Your task to perform on an android device: turn off location Image 0: 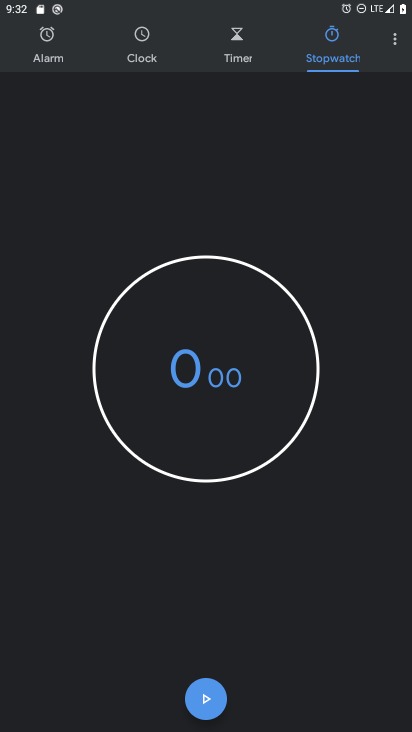
Step 0: press home button
Your task to perform on an android device: turn off location Image 1: 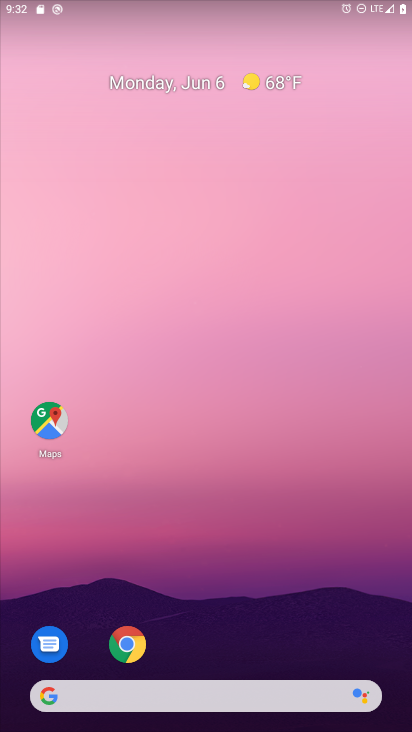
Step 1: drag from (252, 708) to (157, 95)
Your task to perform on an android device: turn off location Image 2: 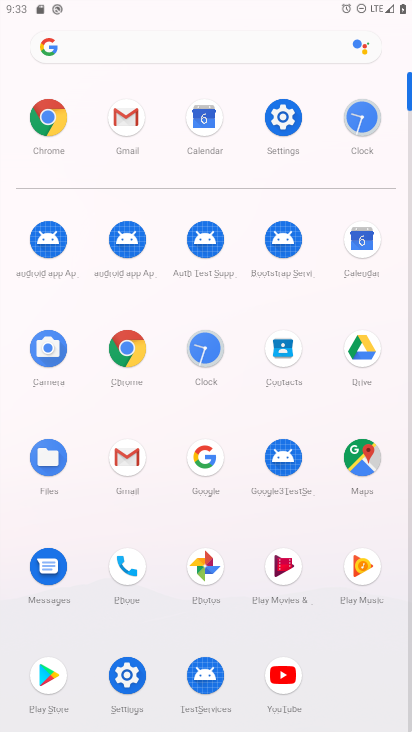
Step 2: click (288, 137)
Your task to perform on an android device: turn off location Image 3: 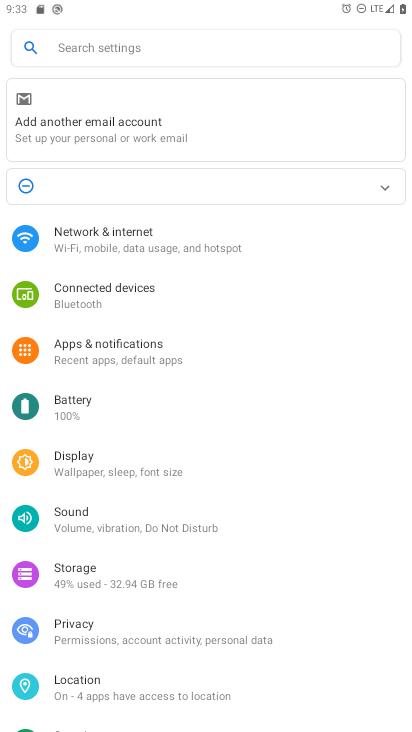
Step 3: click (148, 51)
Your task to perform on an android device: turn off location Image 4: 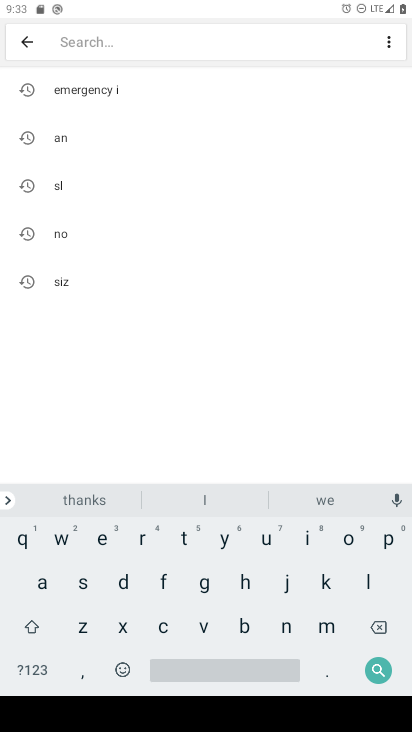
Step 4: click (374, 580)
Your task to perform on an android device: turn off location Image 5: 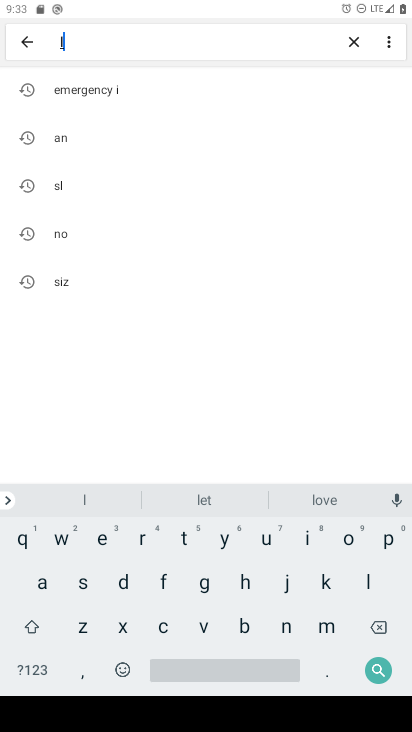
Step 5: click (349, 537)
Your task to perform on an android device: turn off location Image 6: 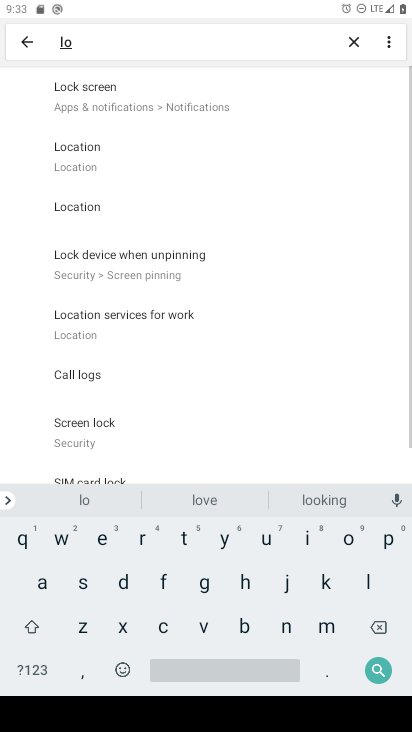
Step 6: click (84, 166)
Your task to perform on an android device: turn off location Image 7: 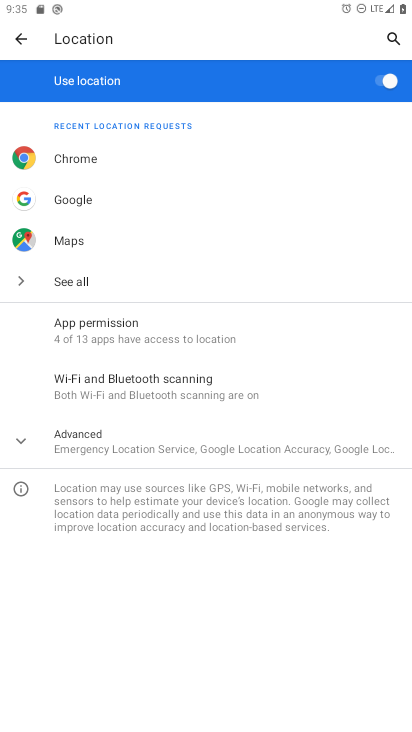
Step 7: task complete